Your task to perform on an android device: Open the calendar and show me this week's events? Image 0: 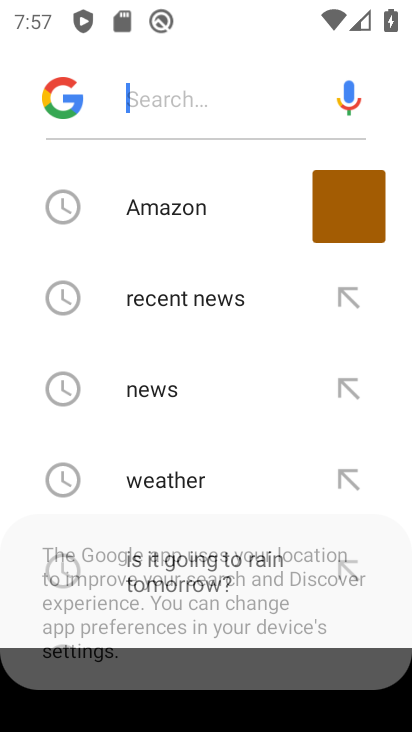
Step 0: press back button
Your task to perform on an android device: Open the calendar and show me this week's events? Image 1: 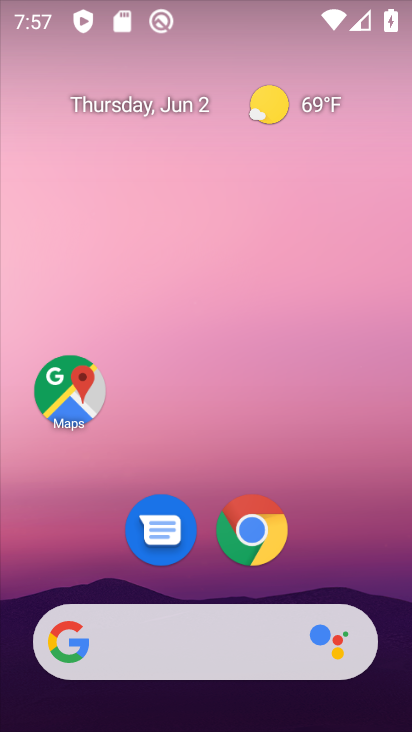
Step 1: drag from (198, 628) to (132, 12)
Your task to perform on an android device: Open the calendar and show me this week's events? Image 2: 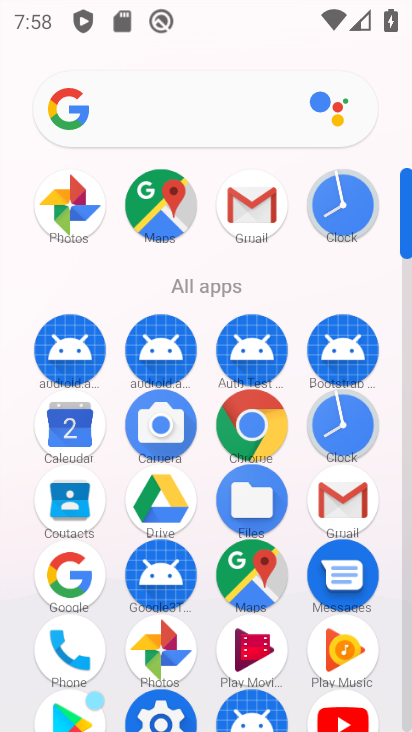
Step 2: click (72, 437)
Your task to perform on an android device: Open the calendar and show me this week's events? Image 3: 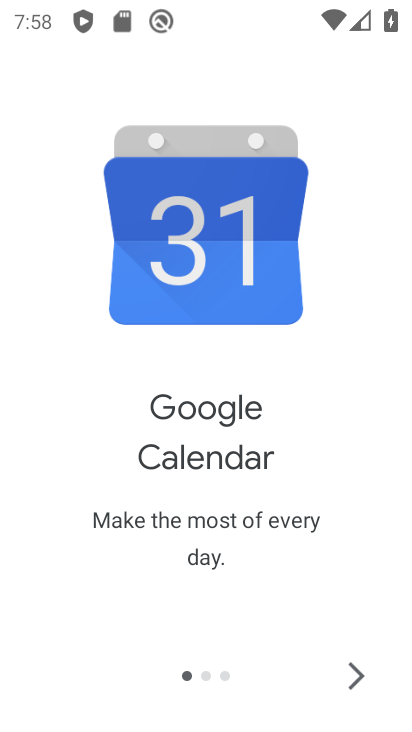
Step 3: click (360, 669)
Your task to perform on an android device: Open the calendar and show me this week's events? Image 4: 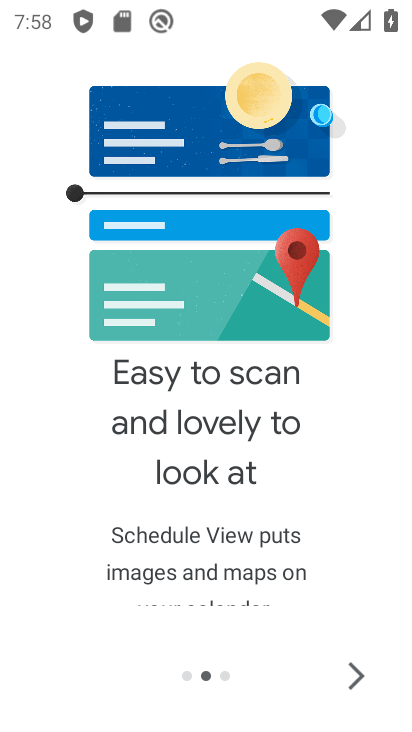
Step 4: click (360, 669)
Your task to perform on an android device: Open the calendar and show me this week's events? Image 5: 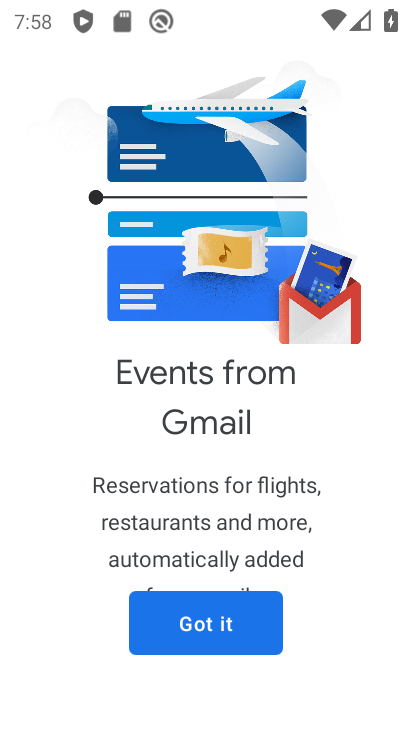
Step 5: click (189, 611)
Your task to perform on an android device: Open the calendar and show me this week's events? Image 6: 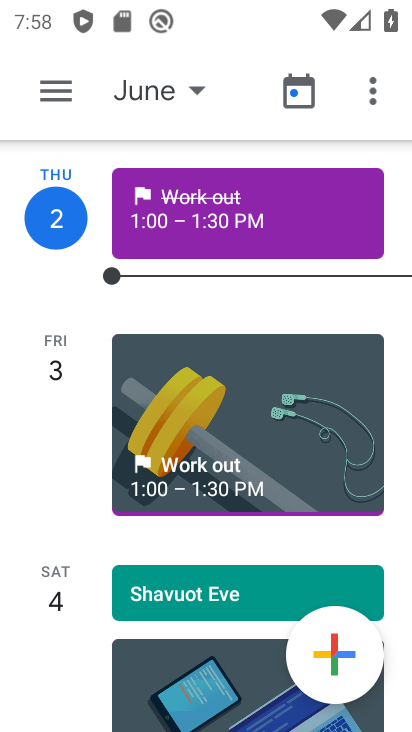
Step 6: click (68, 86)
Your task to perform on an android device: Open the calendar and show me this week's events? Image 7: 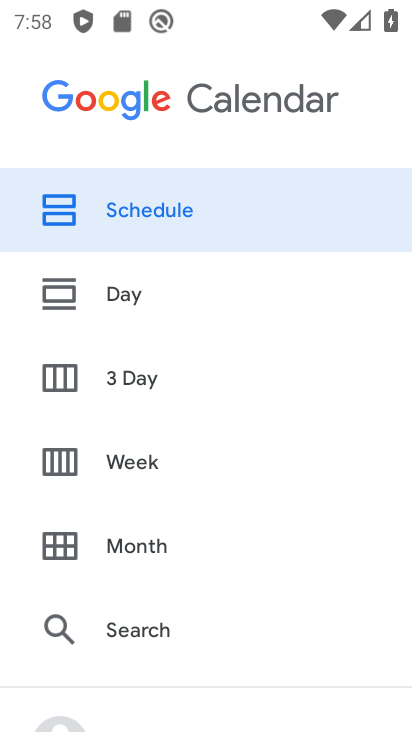
Step 7: click (123, 440)
Your task to perform on an android device: Open the calendar and show me this week's events? Image 8: 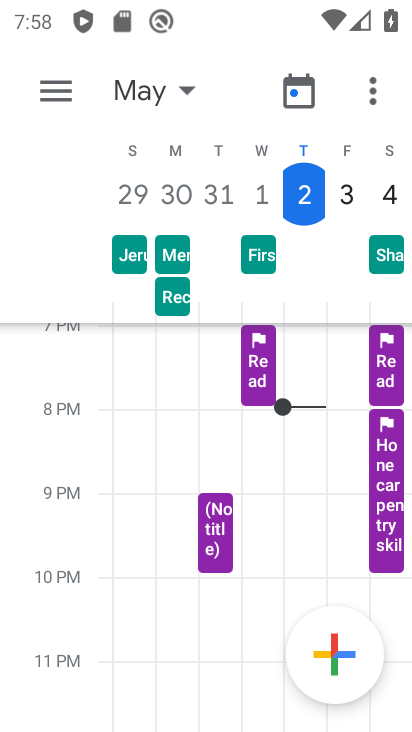
Step 8: task complete